Your task to perform on an android device: turn on bluetooth scan Image 0: 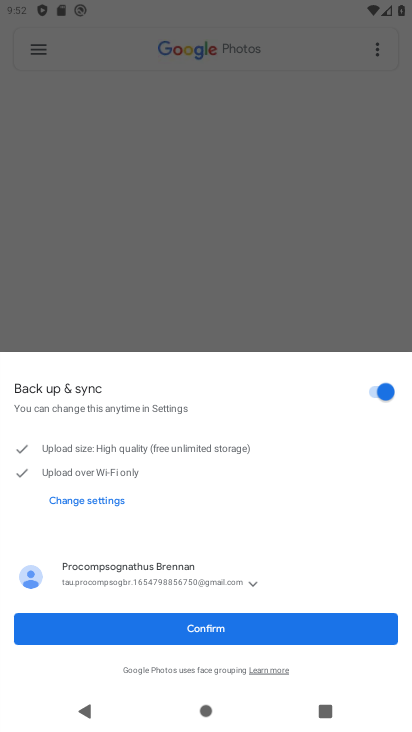
Step 0: press home button
Your task to perform on an android device: turn on bluetooth scan Image 1: 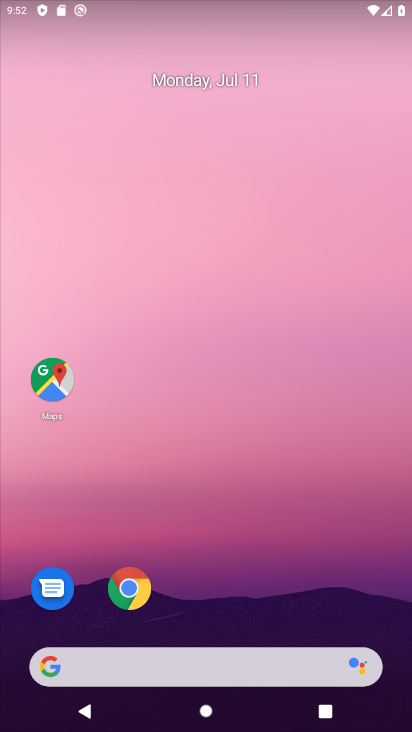
Step 1: drag from (275, 627) to (238, 14)
Your task to perform on an android device: turn on bluetooth scan Image 2: 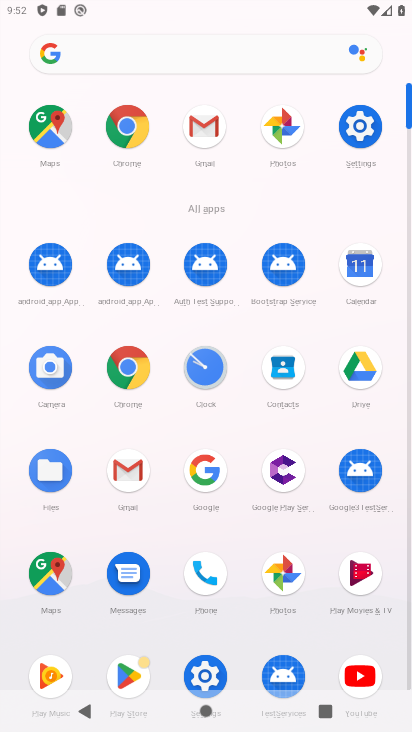
Step 2: click (210, 670)
Your task to perform on an android device: turn on bluetooth scan Image 3: 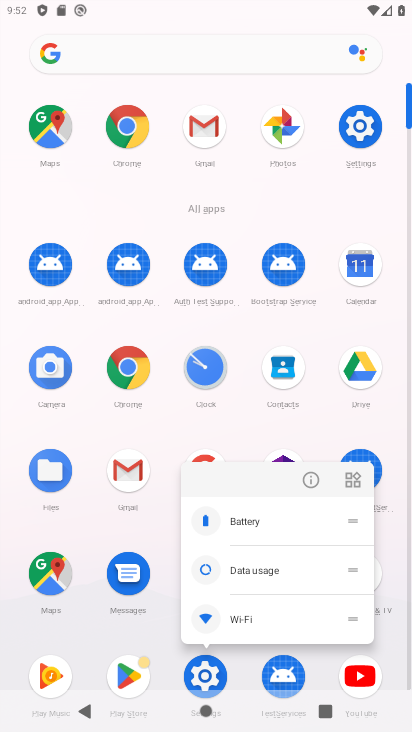
Step 3: click (202, 665)
Your task to perform on an android device: turn on bluetooth scan Image 4: 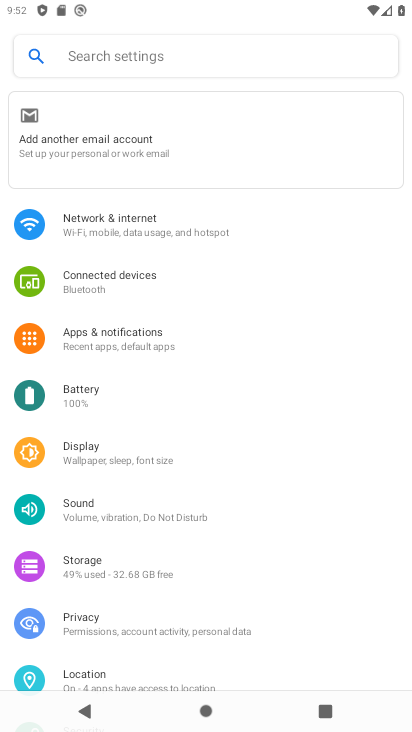
Step 4: click (106, 672)
Your task to perform on an android device: turn on bluetooth scan Image 5: 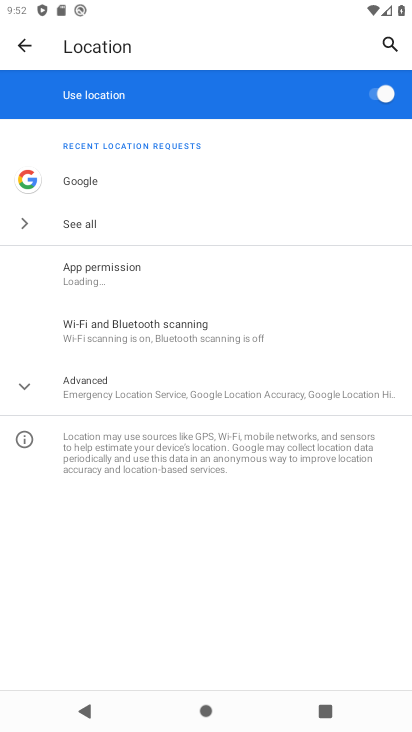
Step 5: click (191, 294)
Your task to perform on an android device: turn on bluetooth scan Image 6: 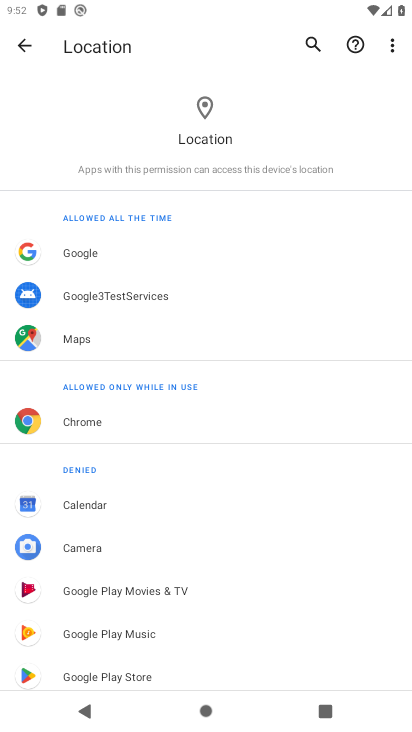
Step 6: click (19, 35)
Your task to perform on an android device: turn on bluetooth scan Image 7: 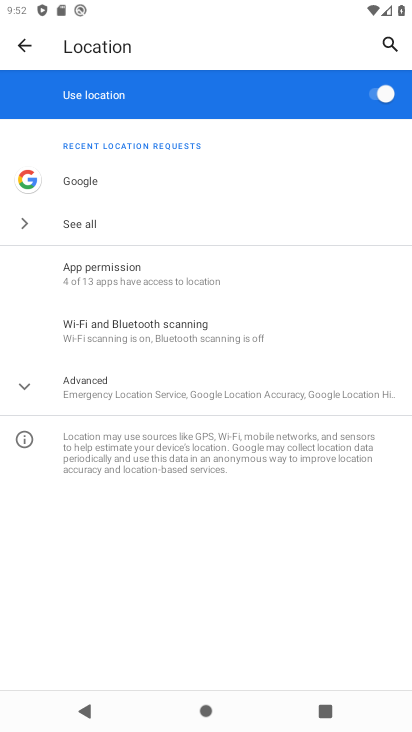
Step 7: click (171, 334)
Your task to perform on an android device: turn on bluetooth scan Image 8: 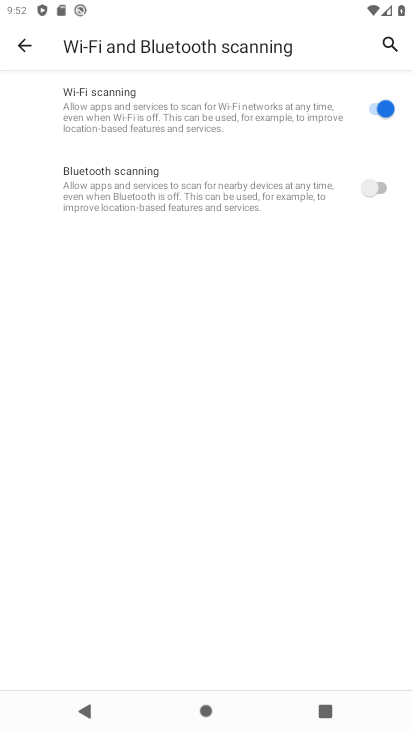
Step 8: click (368, 197)
Your task to perform on an android device: turn on bluetooth scan Image 9: 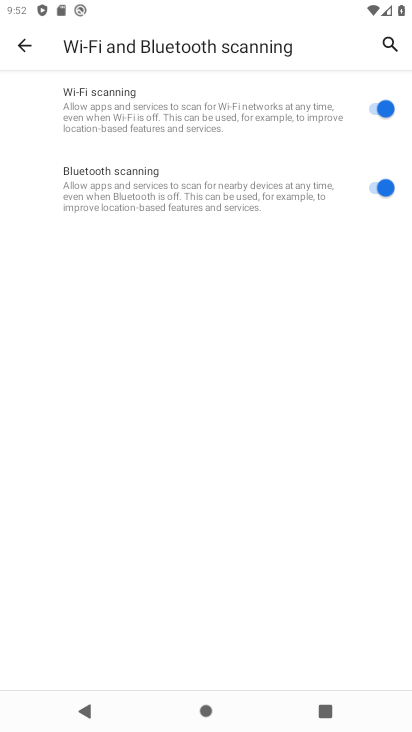
Step 9: task complete